Your task to perform on an android device: Do I have any events this weekend? Image 0: 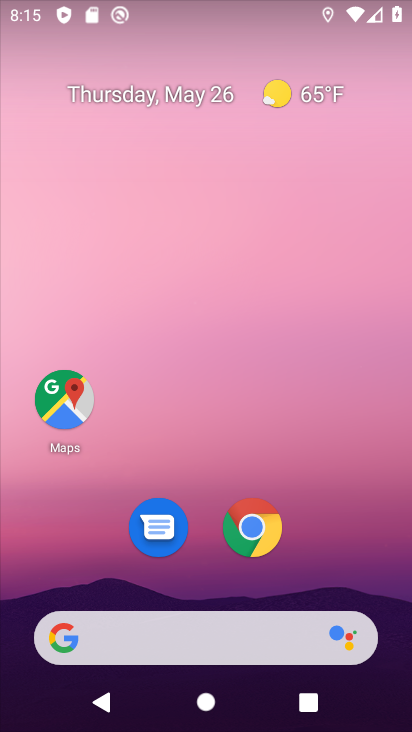
Step 0: drag from (354, 545) to (328, 3)
Your task to perform on an android device: Do I have any events this weekend? Image 1: 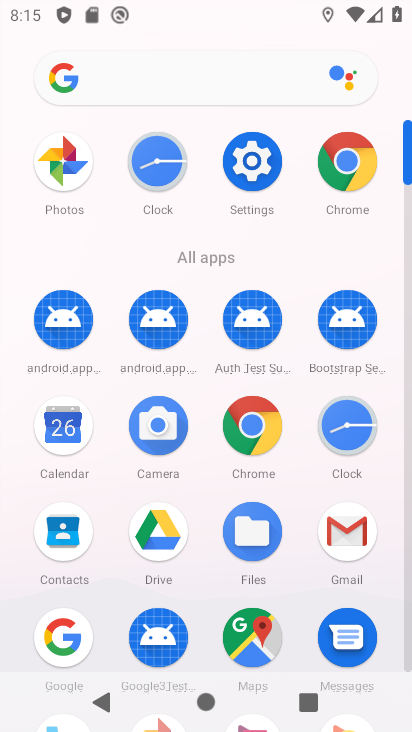
Step 1: click (67, 435)
Your task to perform on an android device: Do I have any events this weekend? Image 2: 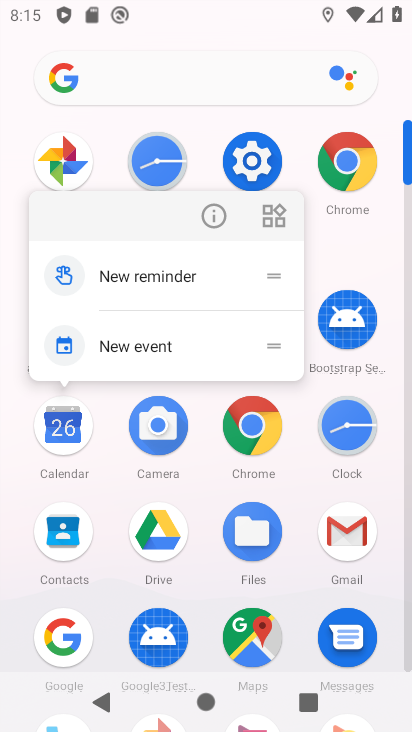
Step 2: click (59, 418)
Your task to perform on an android device: Do I have any events this weekend? Image 3: 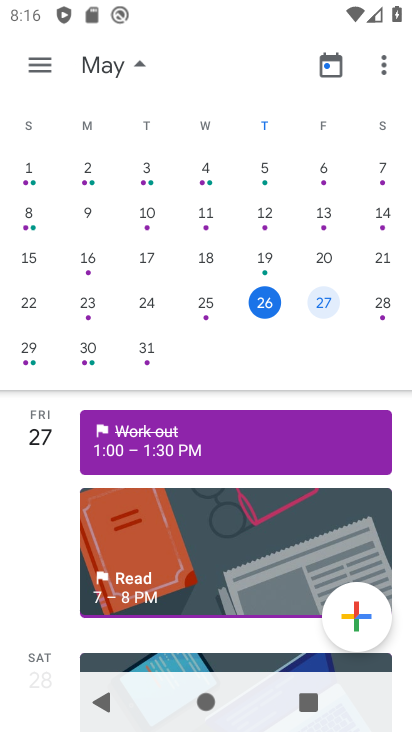
Step 3: click (386, 310)
Your task to perform on an android device: Do I have any events this weekend? Image 4: 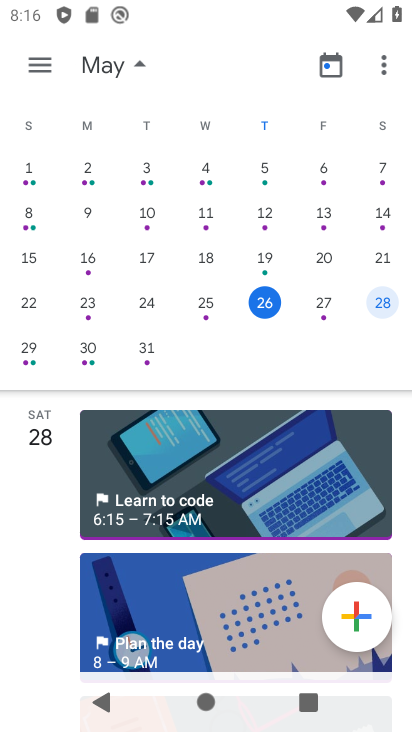
Step 4: task complete